Your task to perform on an android device: Search for the new steph curry shoes on Amazon. Image 0: 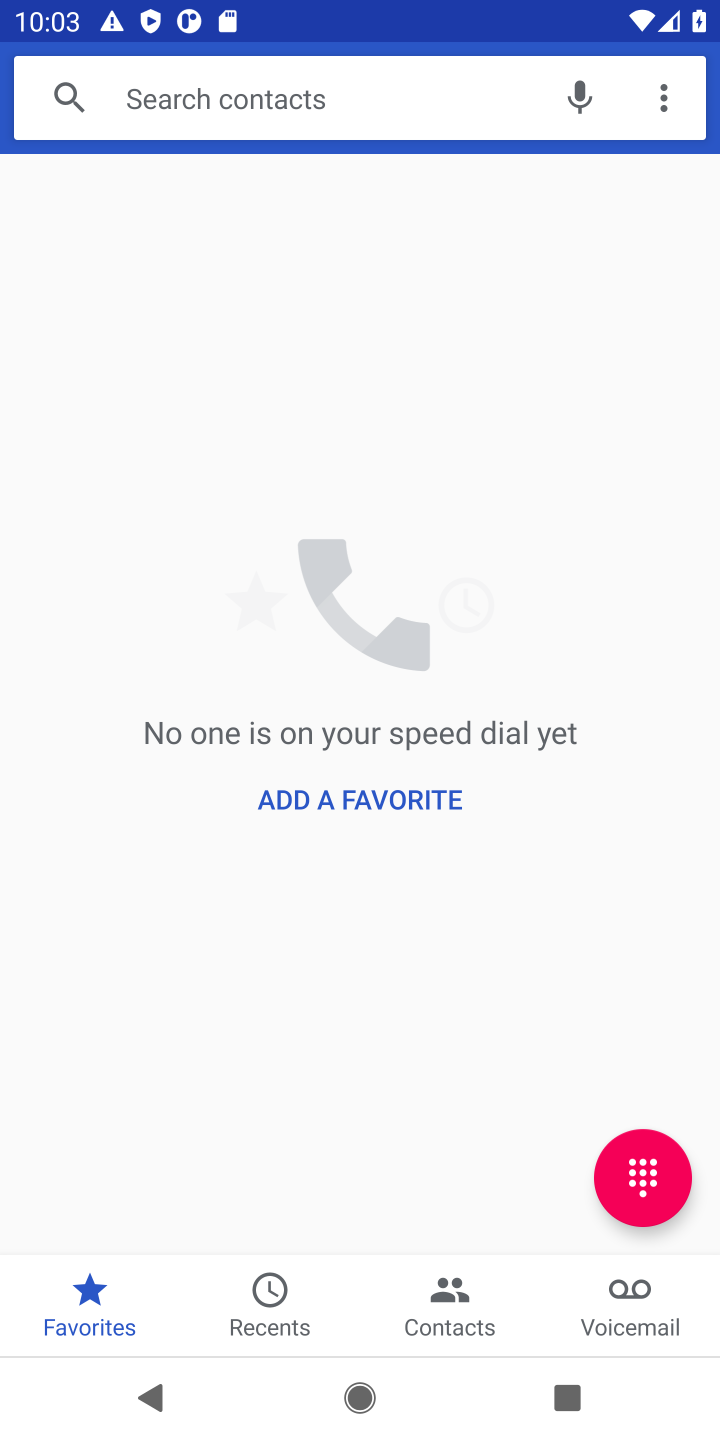
Step 0: press home button
Your task to perform on an android device: Search for the new steph curry shoes on Amazon. Image 1: 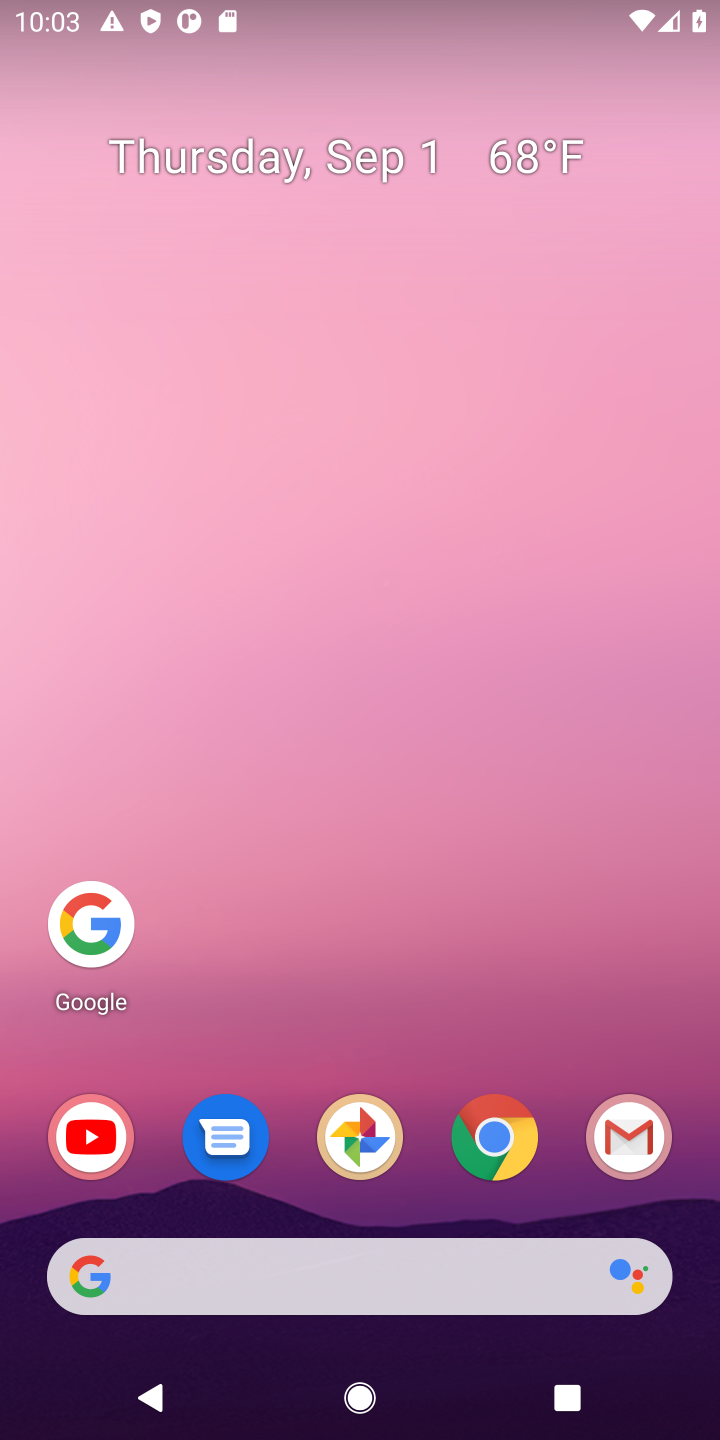
Step 1: click (391, 1258)
Your task to perform on an android device: Search for the new steph curry shoes on Amazon. Image 2: 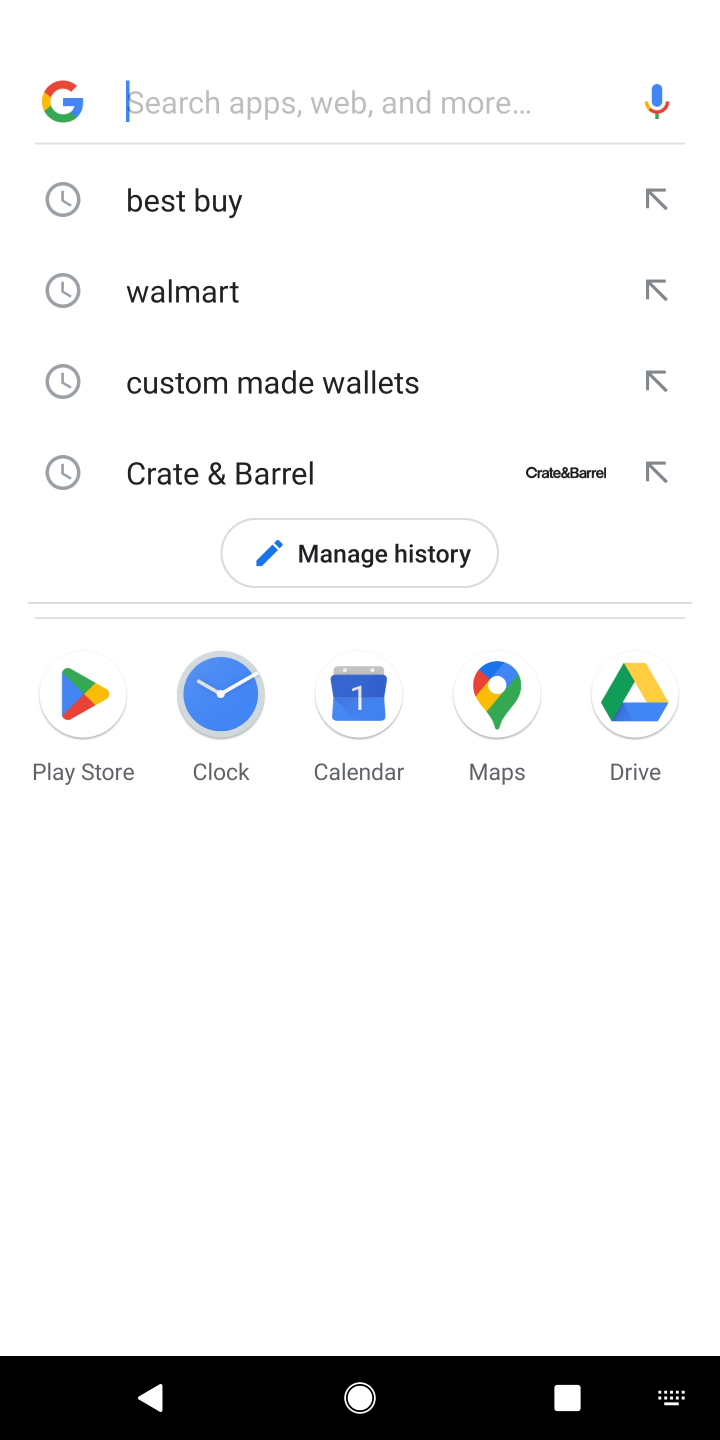
Step 2: click (220, 93)
Your task to perform on an android device: Search for the new steph curry shoes on Amazon. Image 3: 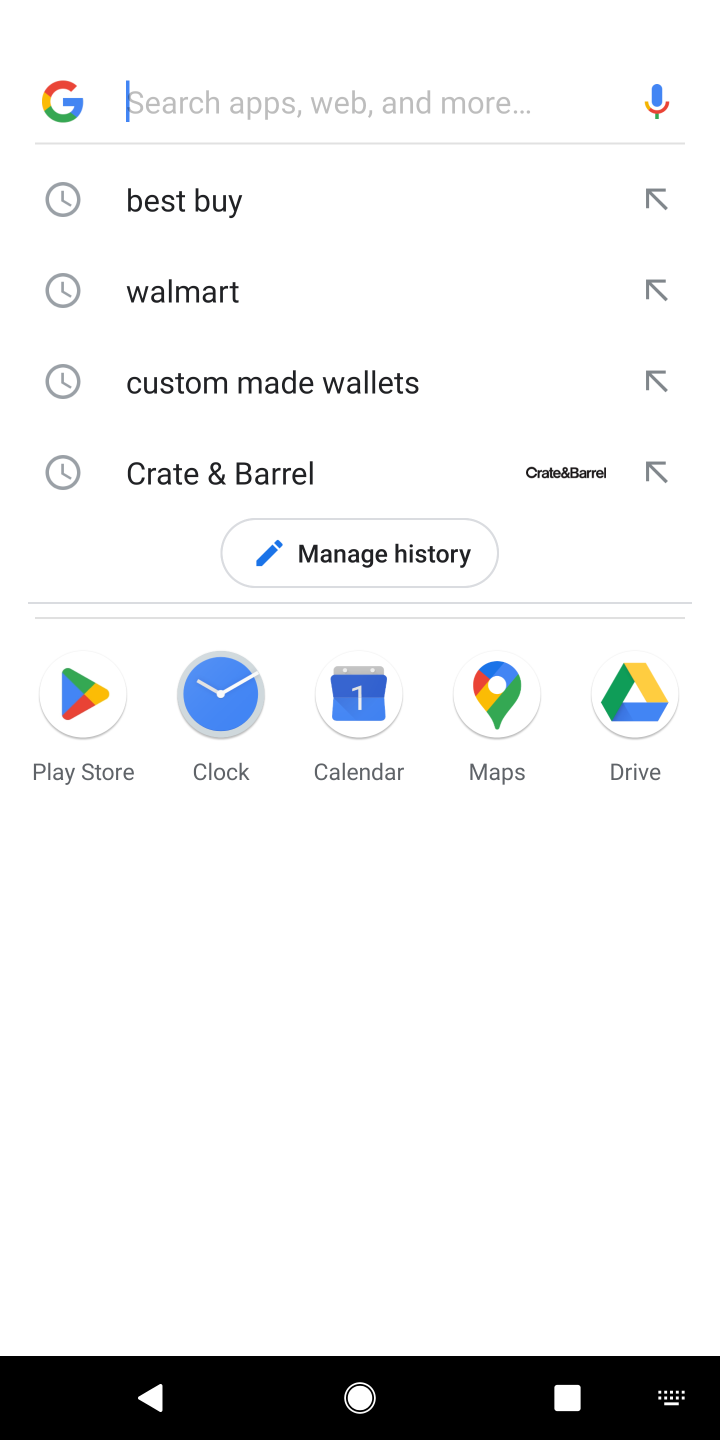
Step 3: type "amazon"
Your task to perform on an android device: Search for the new steph curry shoes on Amazon. Image 4: 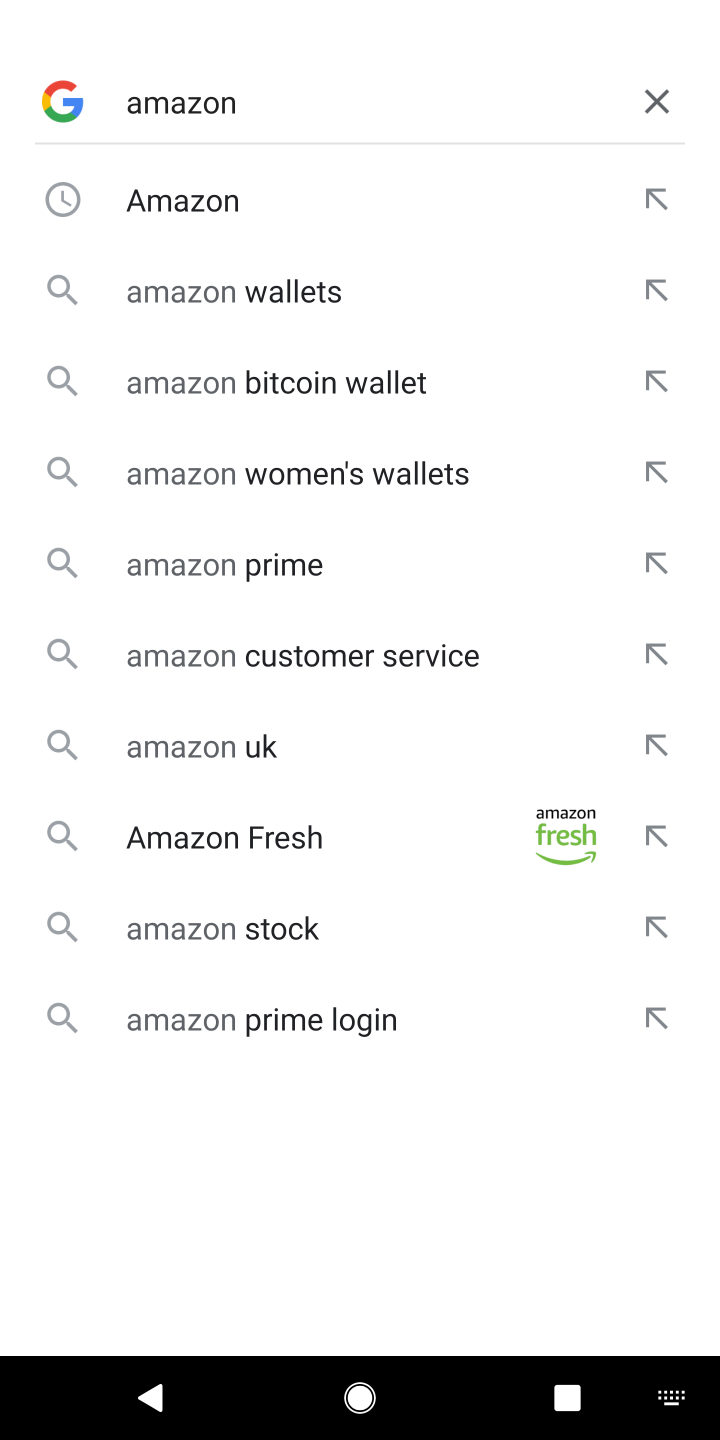
Step 4: click (180, 201)
Your task to perform on an android device: Search for the new steph curry shoes on Amazon. Image 5: 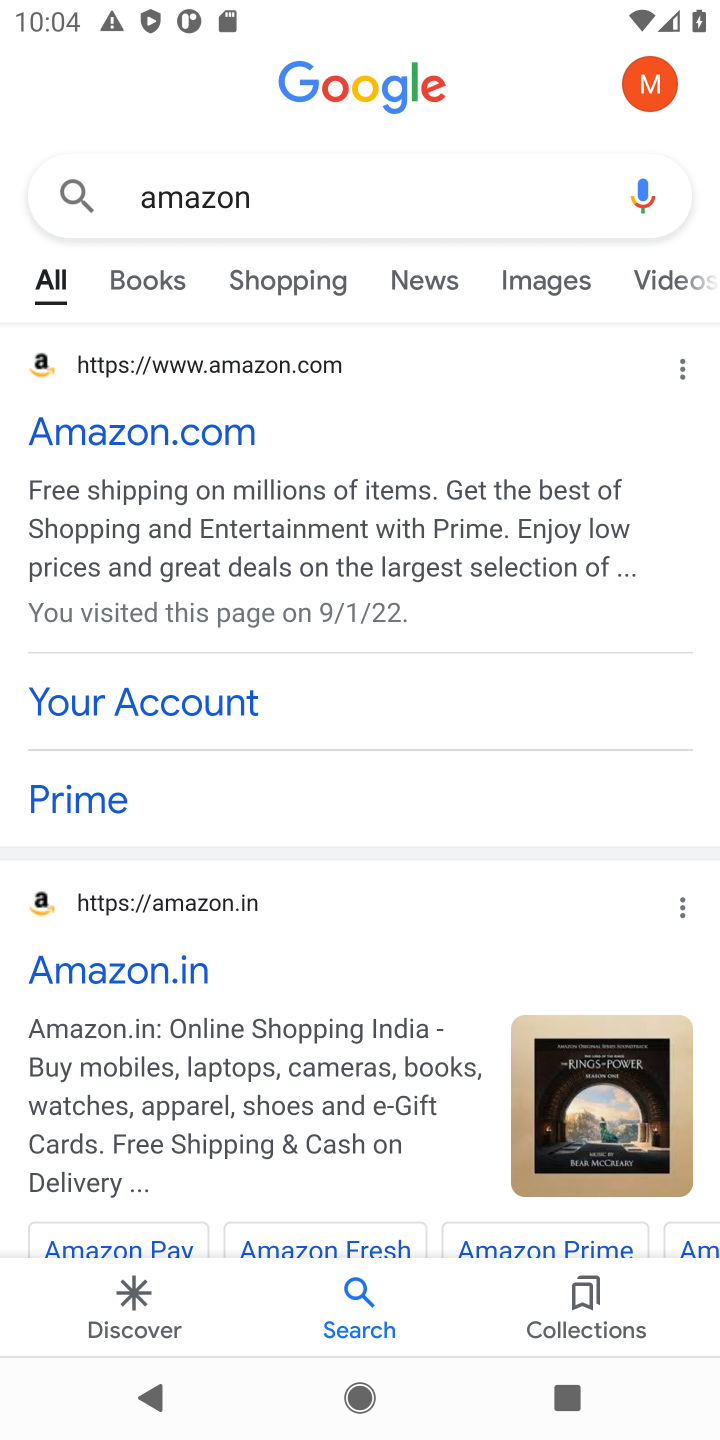
Step 5: click (140, 433)
Your task to perform on an android device: Search for the new steph curry shoes on Amazon. Image 6: 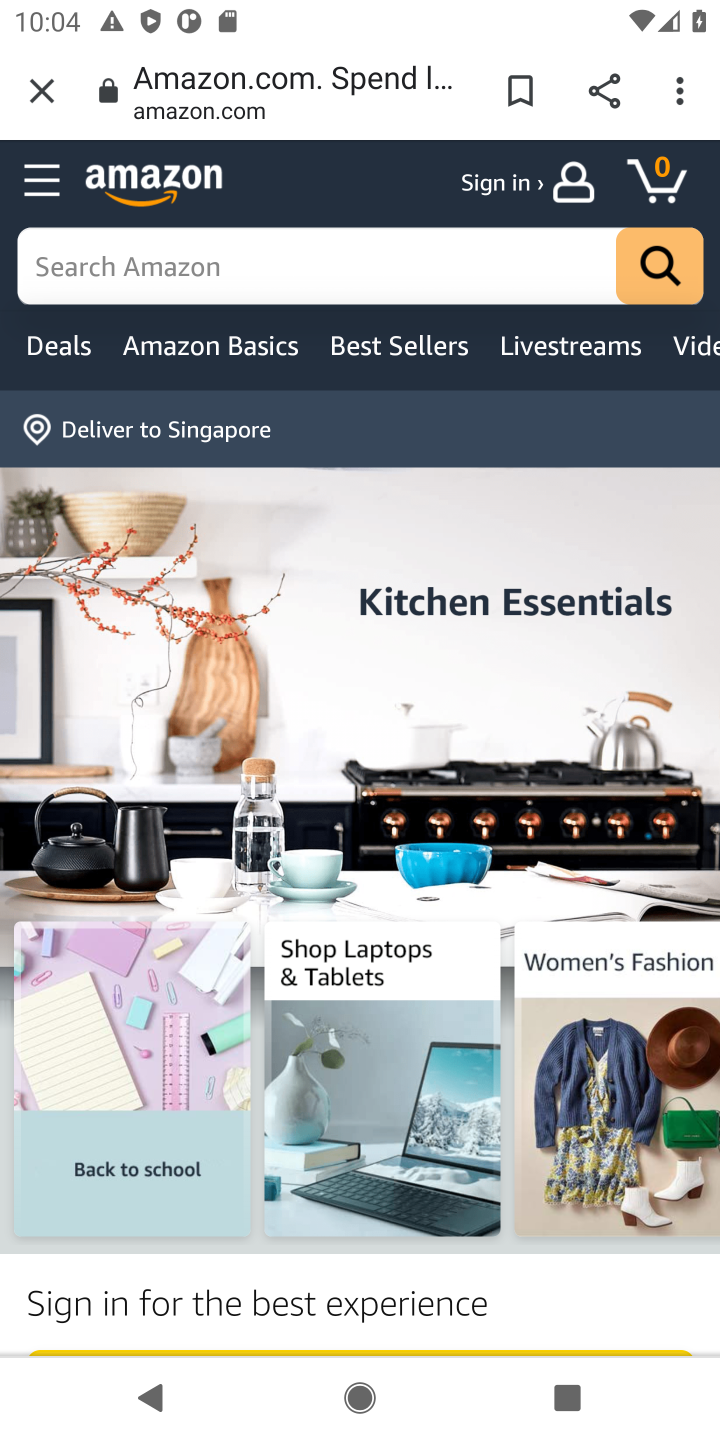
Step 6: click (262, 257)
Your task to perform on an android device: Search for the new steph curry shoes on Amazon. Image 7: 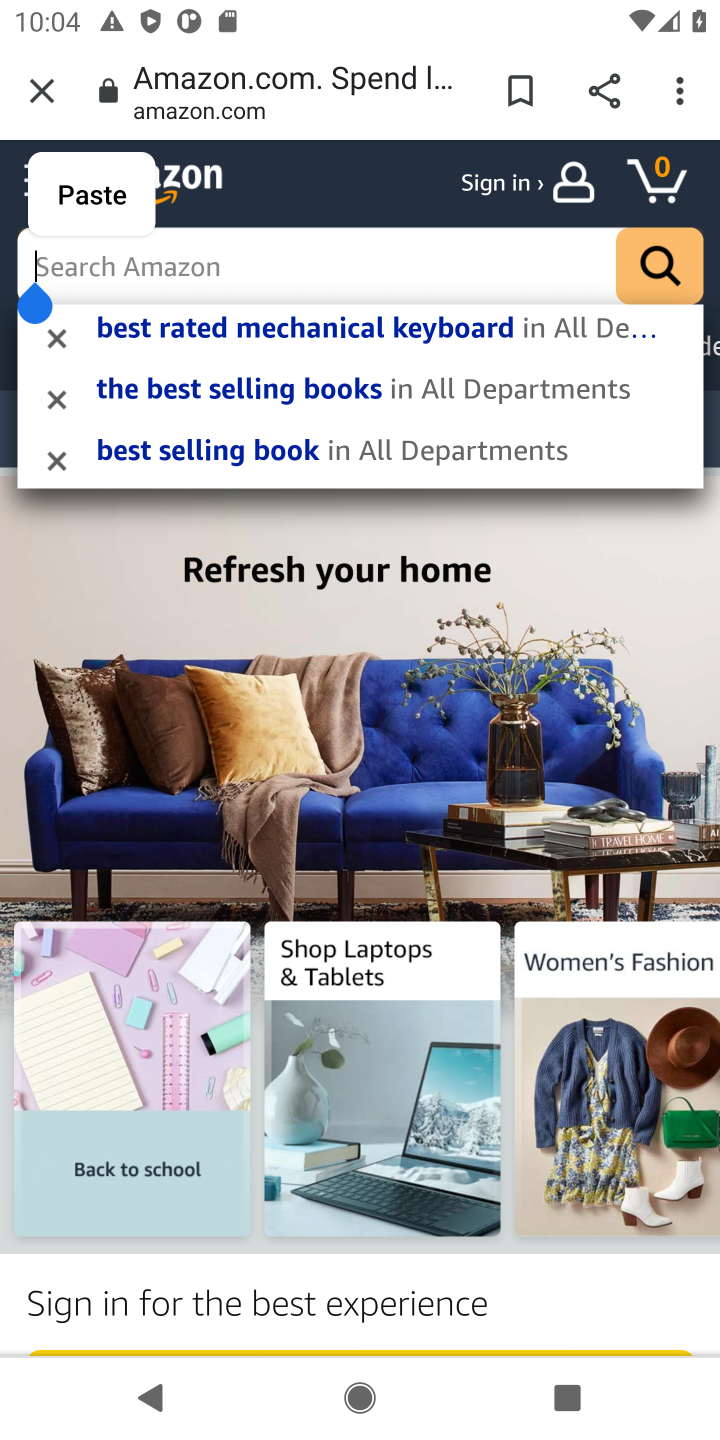
Step 7: type "new steph curry shoes"
Your task to perform on an android device: Search for the new steph curry shoes on Amazon. Image 8: 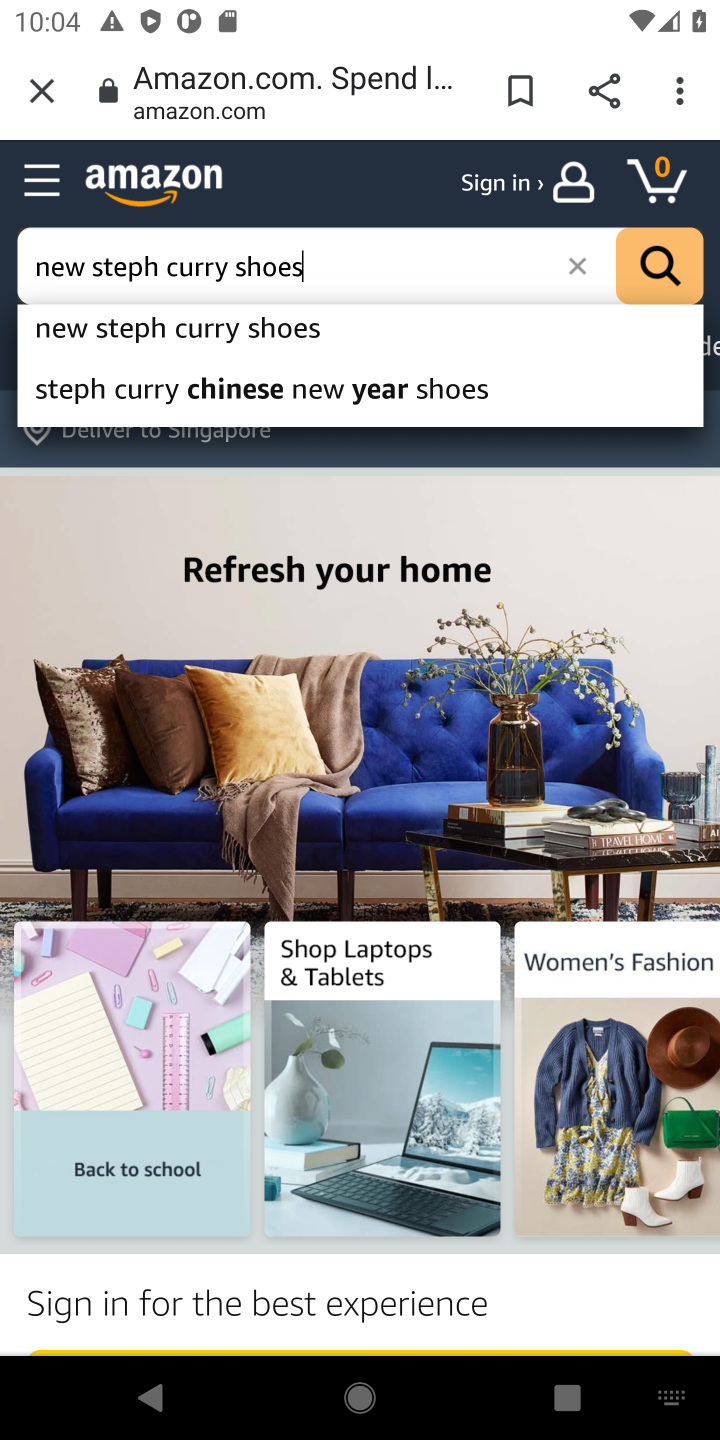
Step 8: click (655, 254)
Your task to perform on an android device: Search for the new steph curry shoes on Amazon. Image 9: 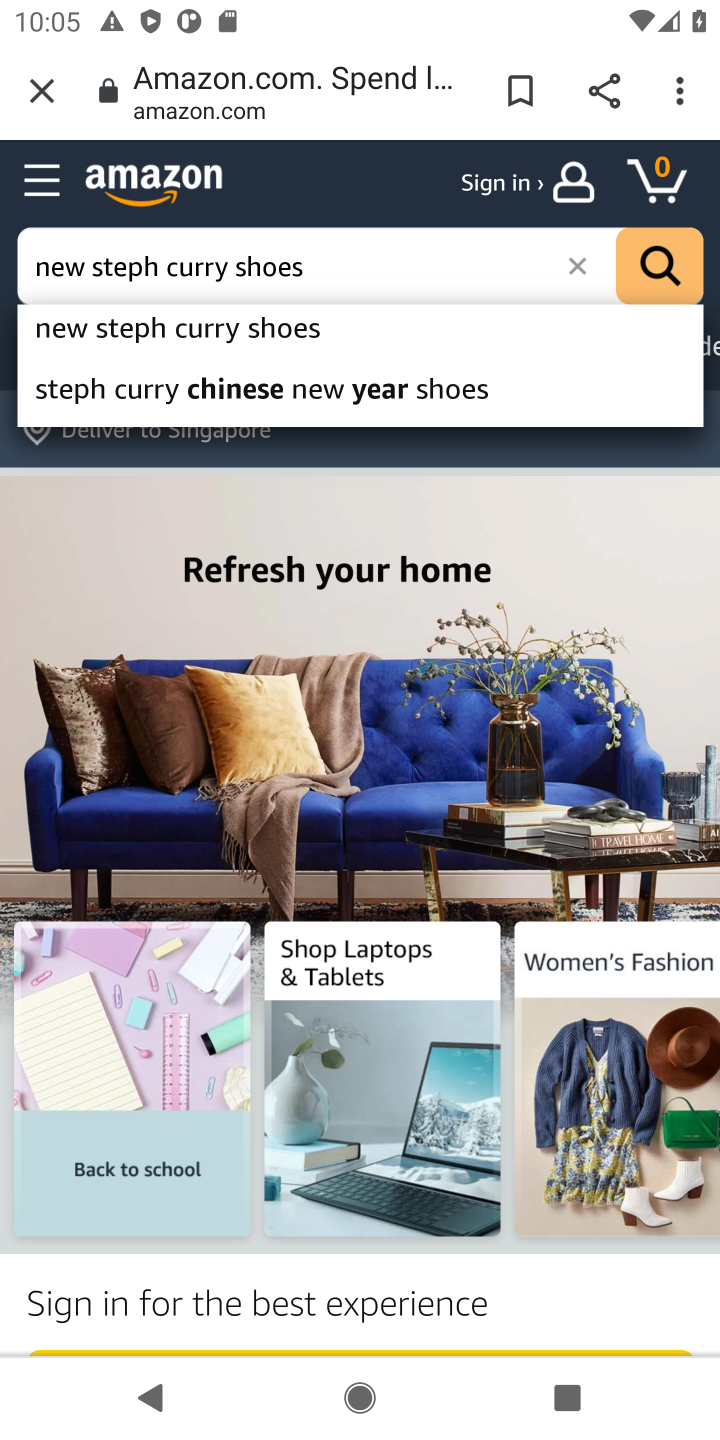
Step 9: click (300, 317)
Your task to perform on an android device: Search for the new steph curry shoes on Amazon. Image 10: 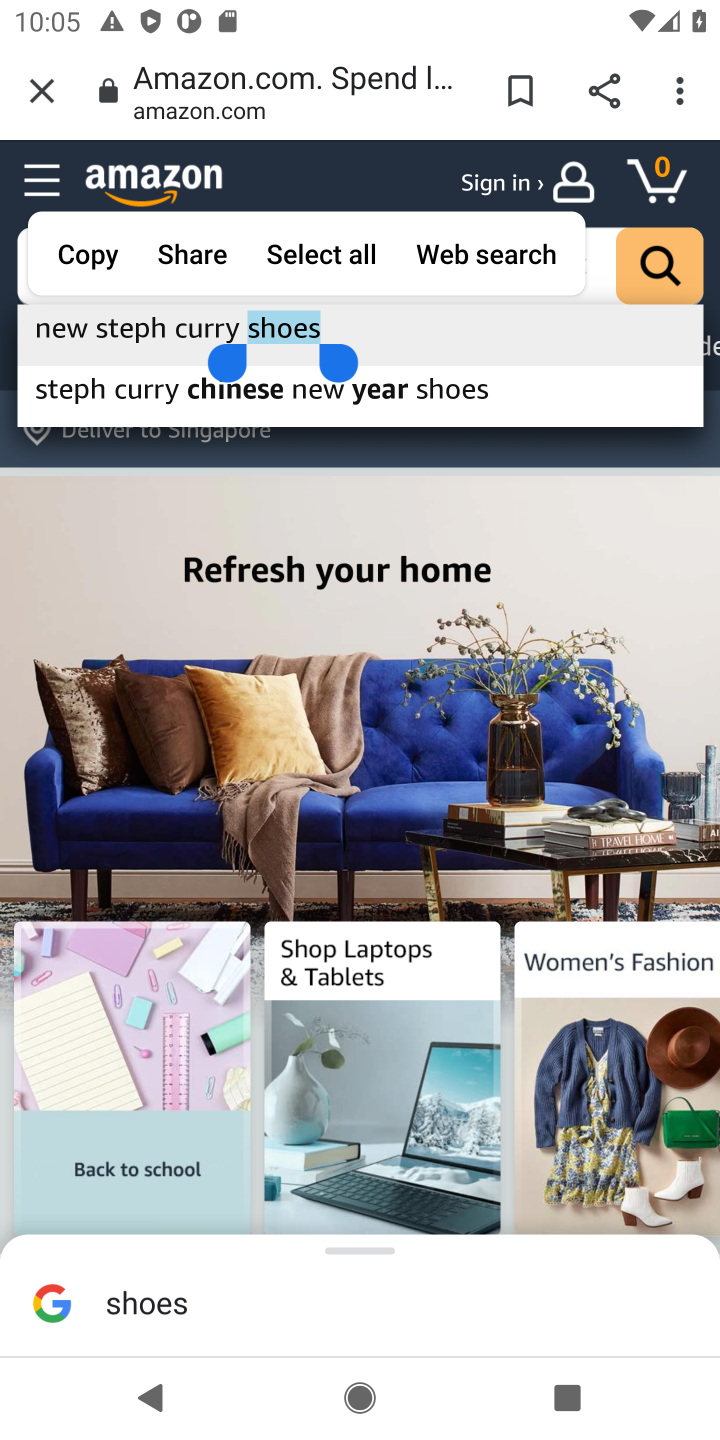
Step 10: click (457, 332)
Your task to perform on an android device: Search for the new steph curry shoes on Amazon. Image 11: 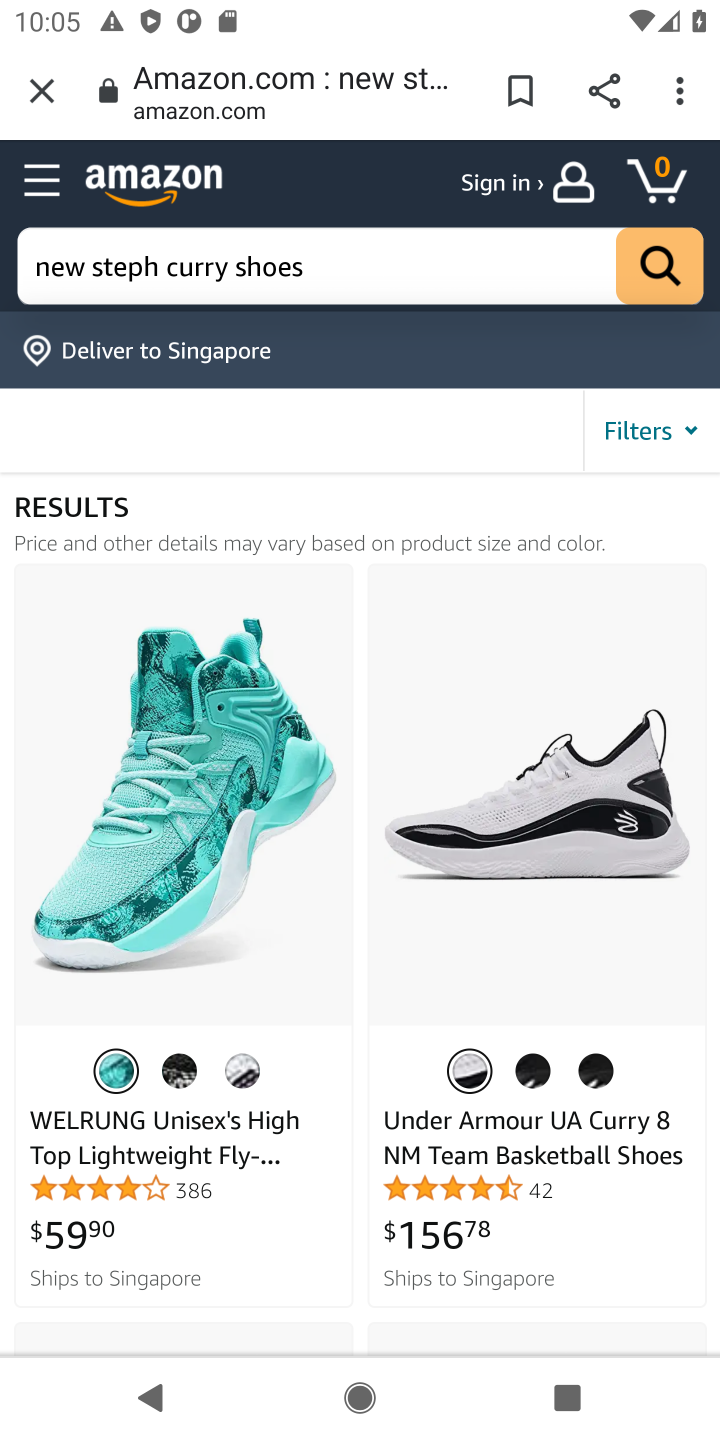
Step 11: task complete